Your task to perform on an android device: Go to Android settings Image 0: 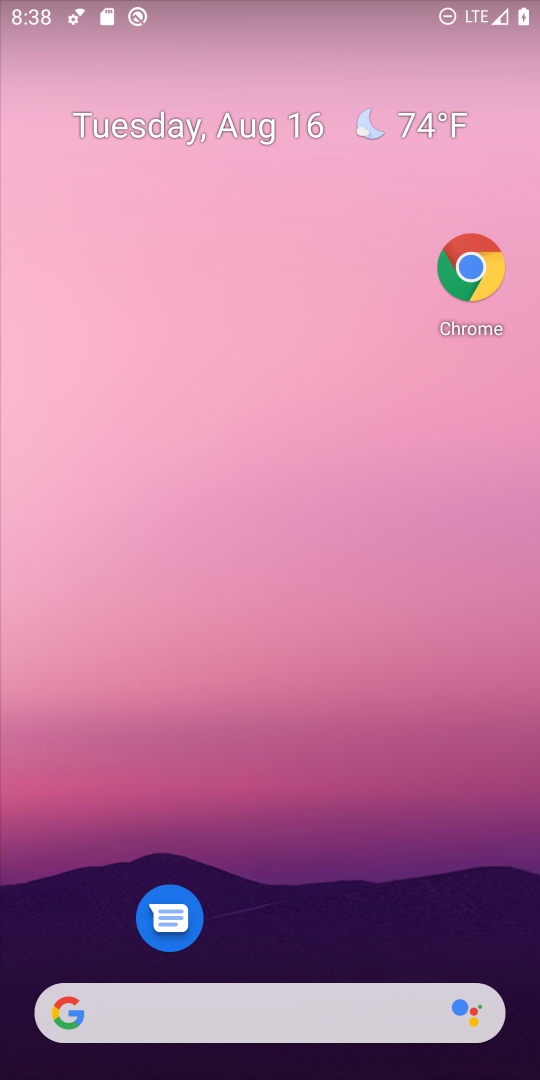
Step 0: drag from (344, 946) to (218, 232)
Your task to perform on an android device: Go to Android settings Image 1: 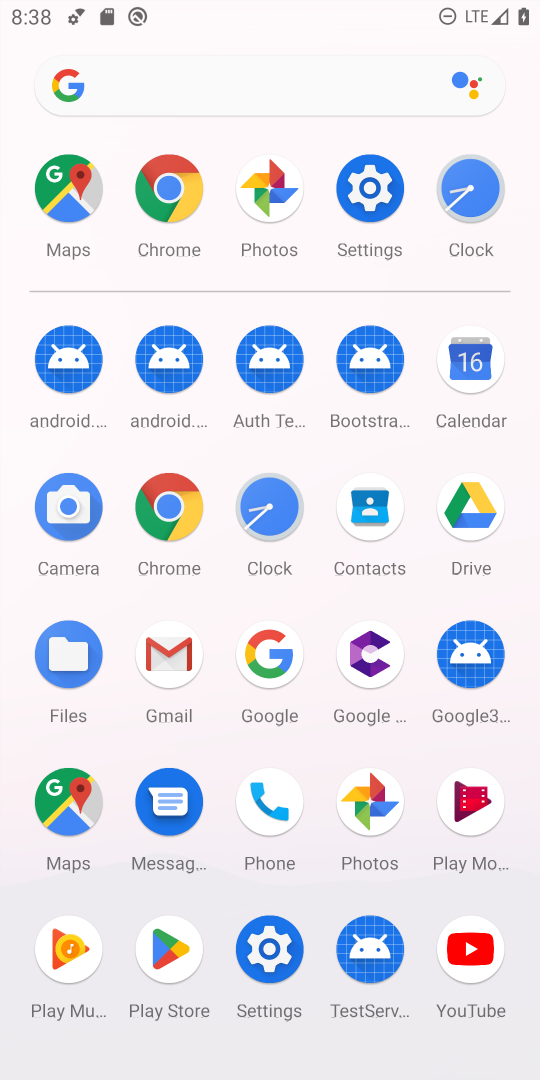
Step 1: click (367, 204)
Your task to perform on an android device: Go to Android settings Image 2: 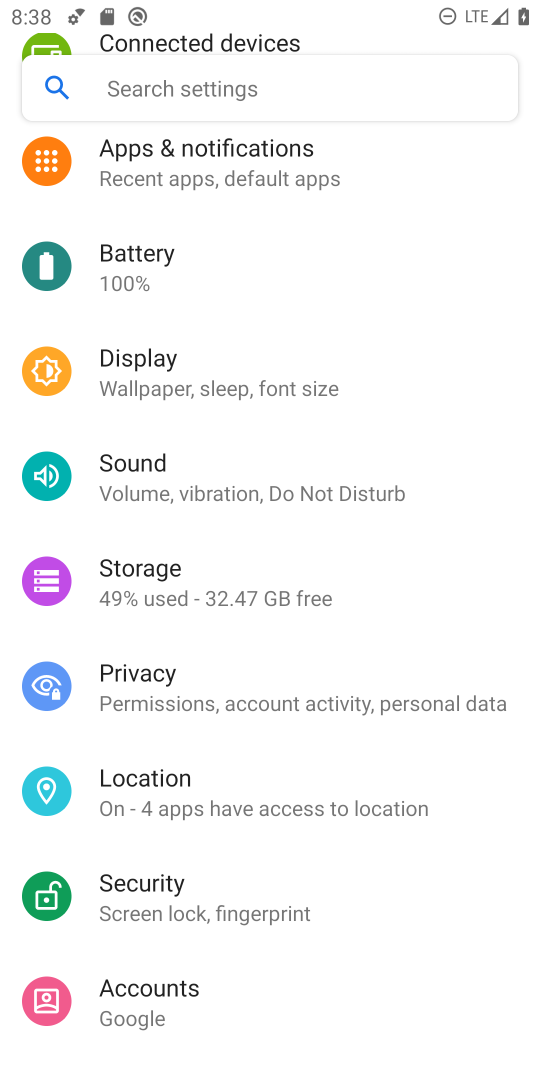
Step 2: drag from (262, 927) to (353, 5)
Your task to perform on an android device: Go to Android settings Image 3: 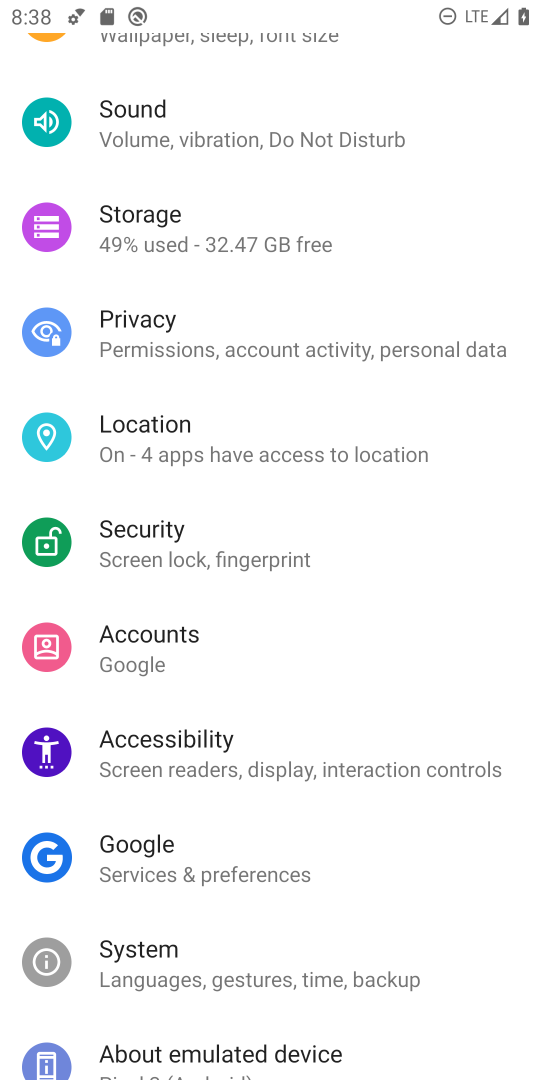
Step 3: drag from (234, 661) to (244, 5)
Your task to perform on an android device: Go to Android settings Image 4: 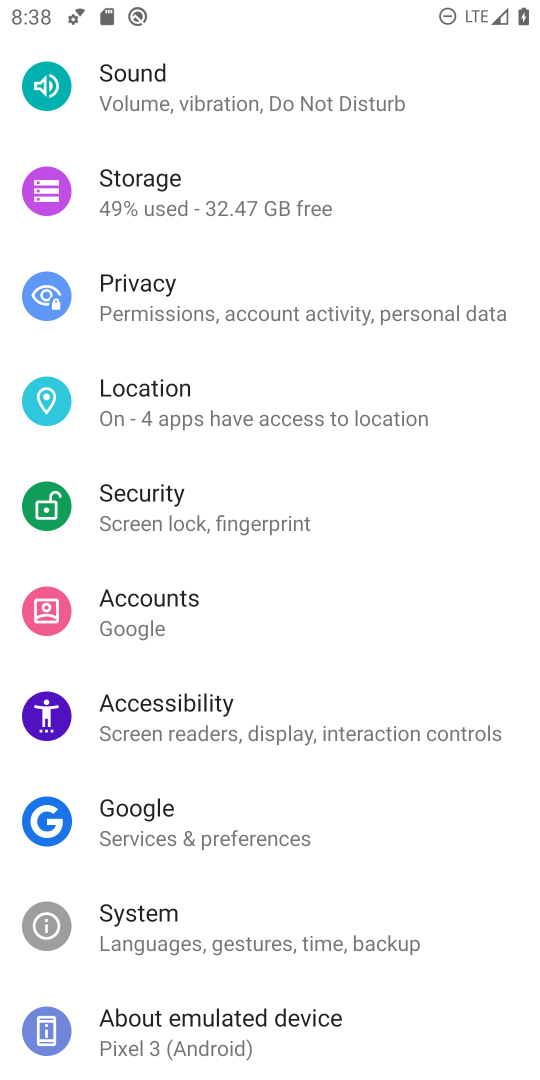
Step 4: drag from (161, 678) to (156, 49)
Your task to perform on an android device: Go to Android settings Image 5: 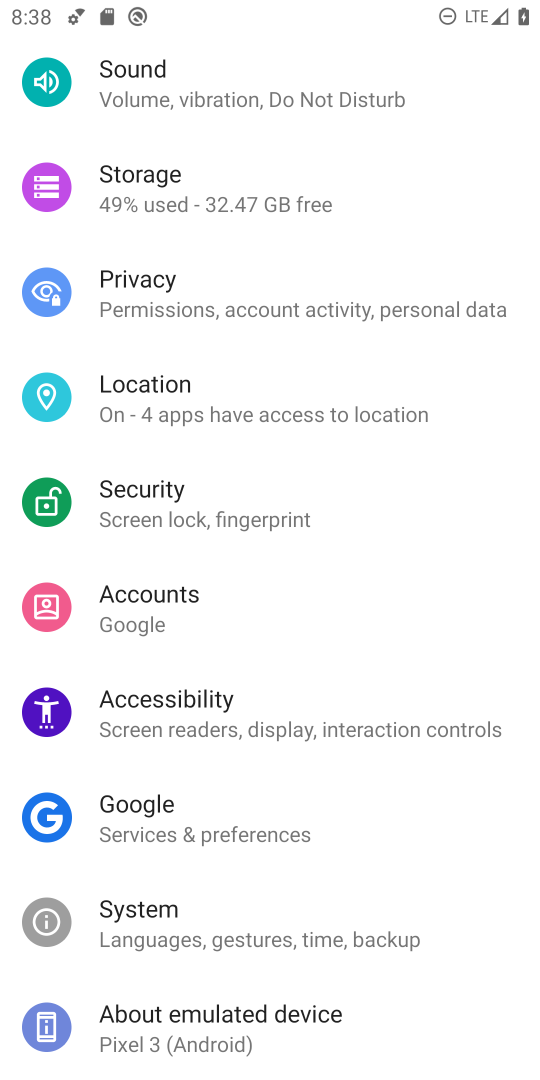
Step 5: click (124, 1045)
Your task to perform on an android device: Go to Android settings Image 6: 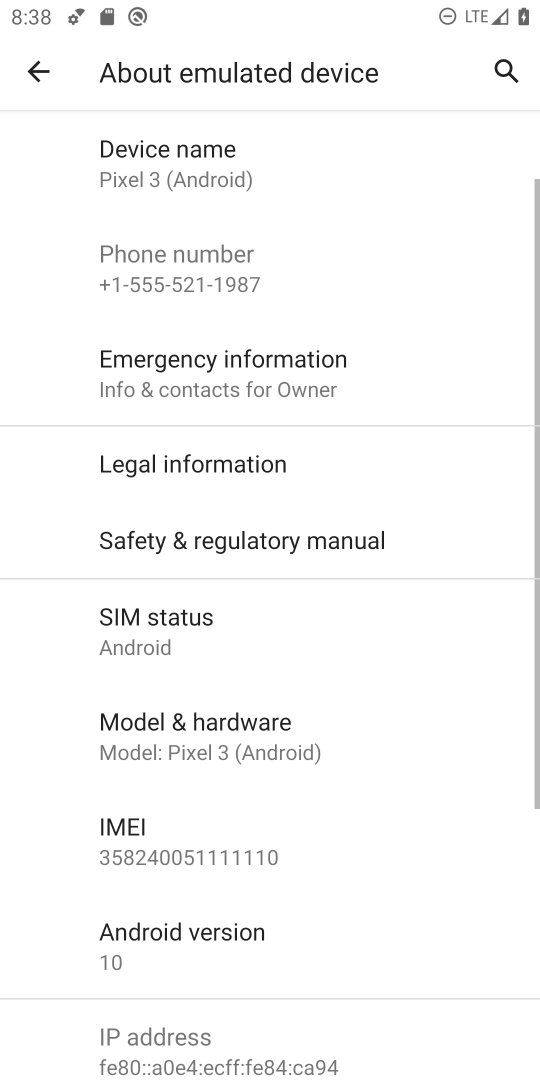
Step 6: click (257, 950)
Your task to perform on an android device: Go to Android settings Image 7: 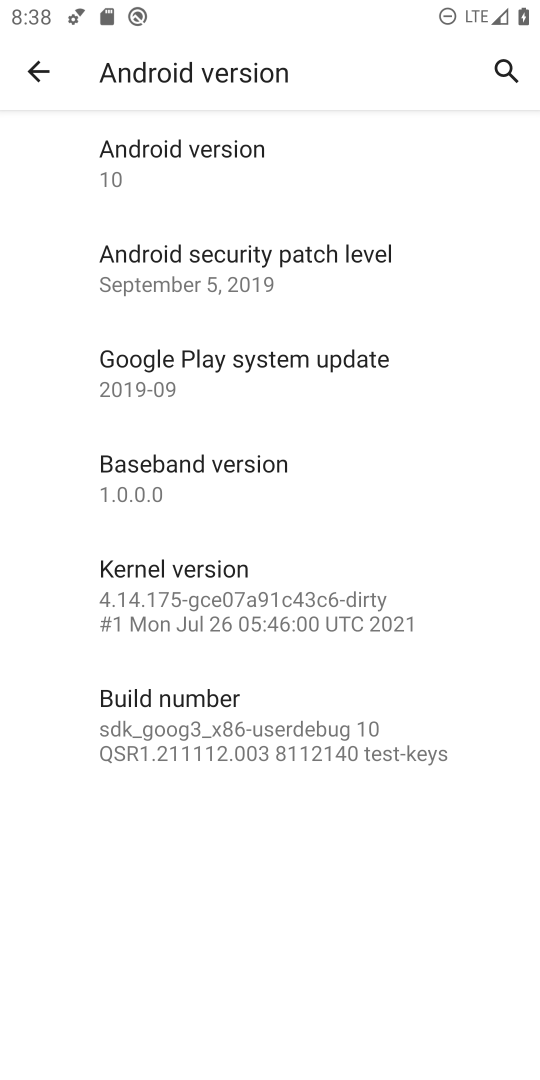
Step 7: task complete